Your task to perform on an android device: Open Wikipedia Image 0: 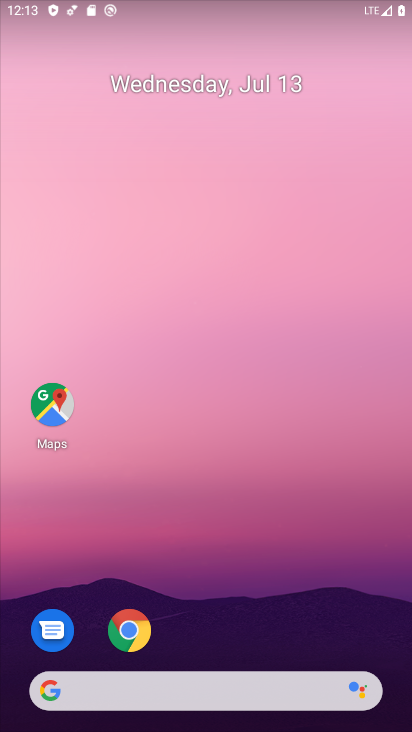
Step 0: click (132, 625)
Your task to perform on an android device: Open Wikipedia Image 1: 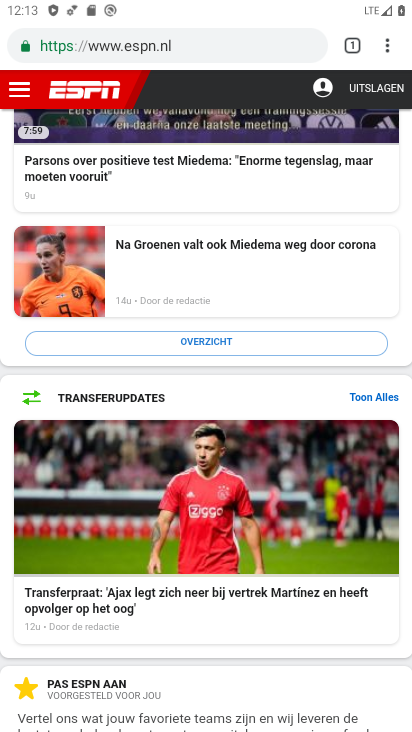
Step 1: click (344, 38)
Your task to perform on an android device: Open Wikipedia Image 2: 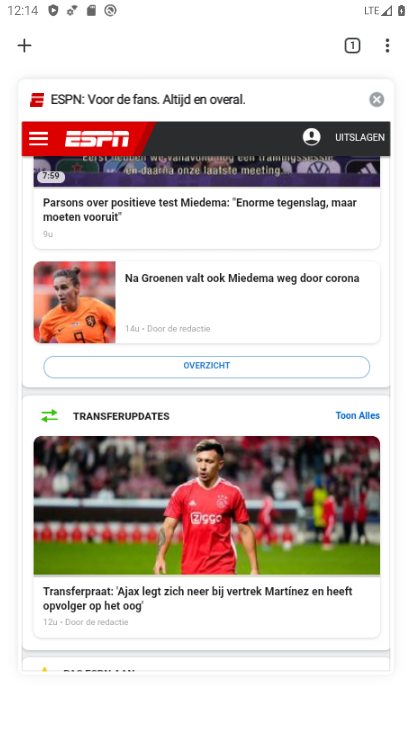
Step 2: click (31, 48)
Your task to perform on an android device: Open Wikipedia Image 3: 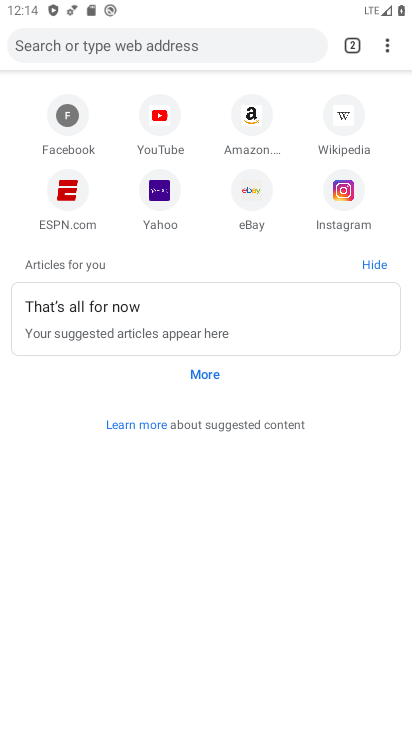
Step 3: click (348, 113)
Your task to perform on an android device: Open Wikipedia Image 4: 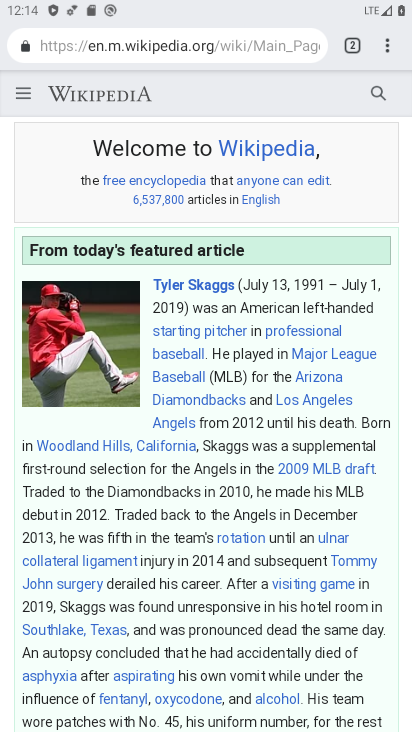
Step 4: task complete